Your task to perform on an android device: When is my next appointment? Image 0: 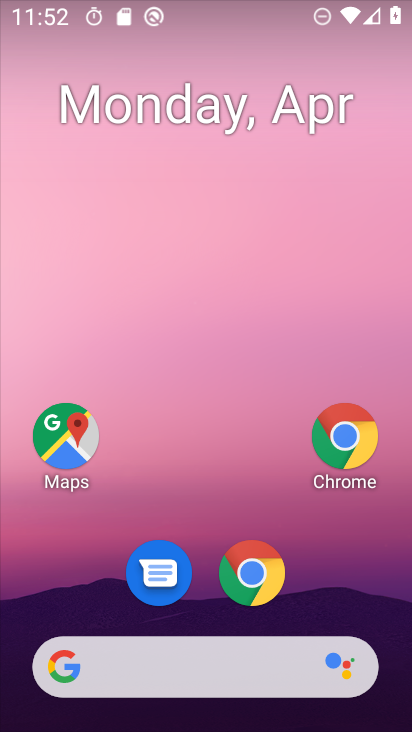
Step 0: drag from (371, 576) to (27, 81)
Your task to perform on an android device: When is my next appointment? Image 1: 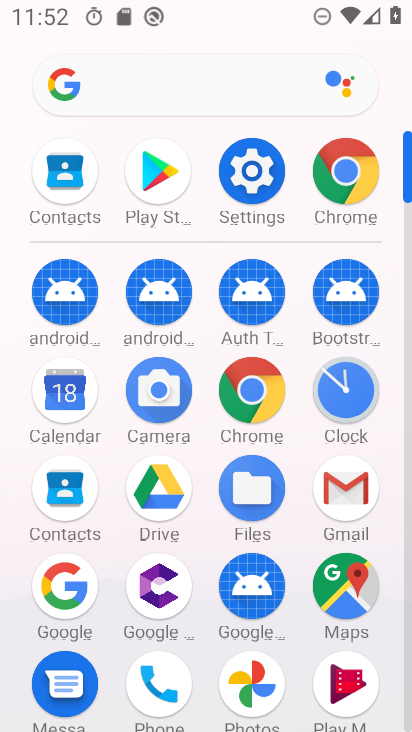
Step 1: click (61, 384)
Your task to perform on an android device: When is my next appointment? Image 2: 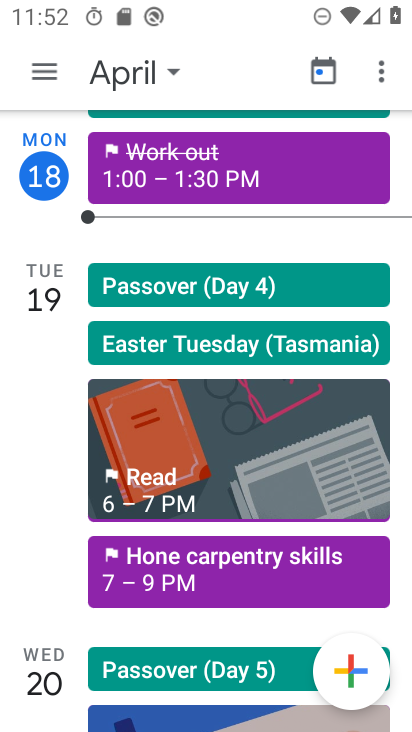
Step 2: click (123, 64)
Your task to perform on an android device: When is my next appointment? Image 3: 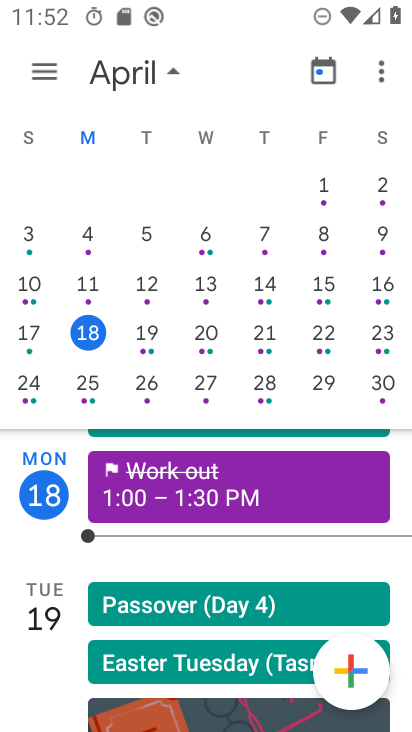
Step 3: task complete